Your task to perform on an android device: change notifications settings Image 0: 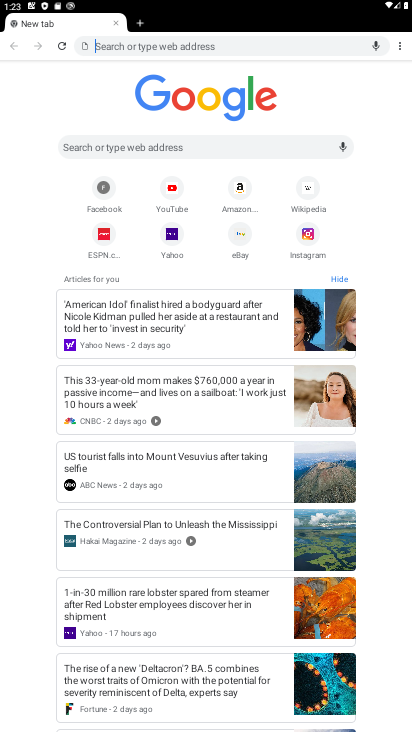
Step 0: press home button
Your task to perform on an android device: change notifications settings Image 1: 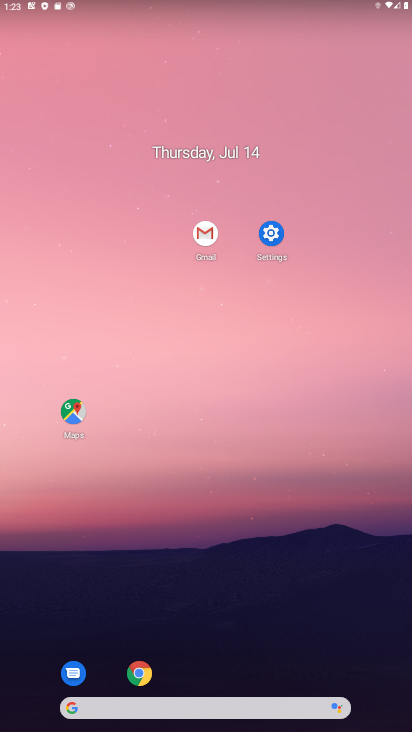
Step 1: click (283, 232)
Your task to perform on an android device: change notifications settings Image 2: 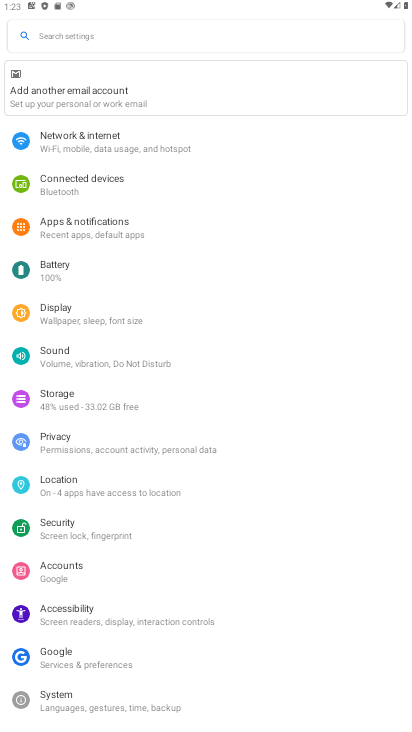
Step 2: click (162, 226)
Your task to perform on an android device: change notifications settings Image 3: 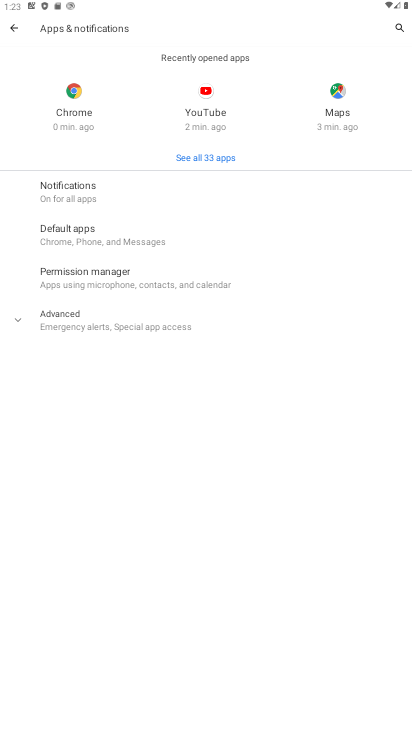
Step 3: task complete